Your task to perform on an android device: open wifi settings Image 0: 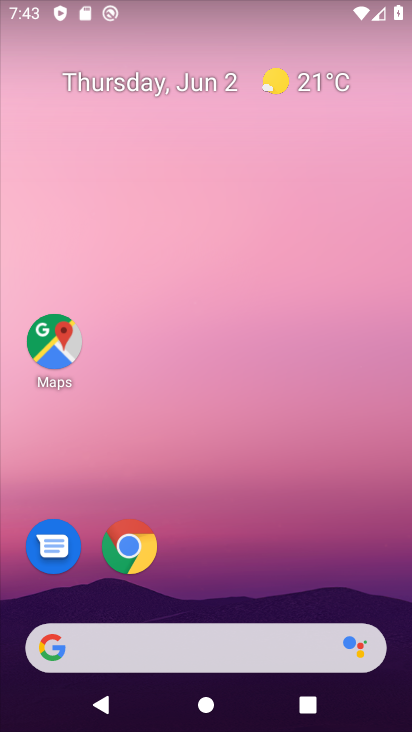
Step 0: drag from (220, 544) to (167, 29)
Your task to perform on an android device: open wifi settings Image 1: 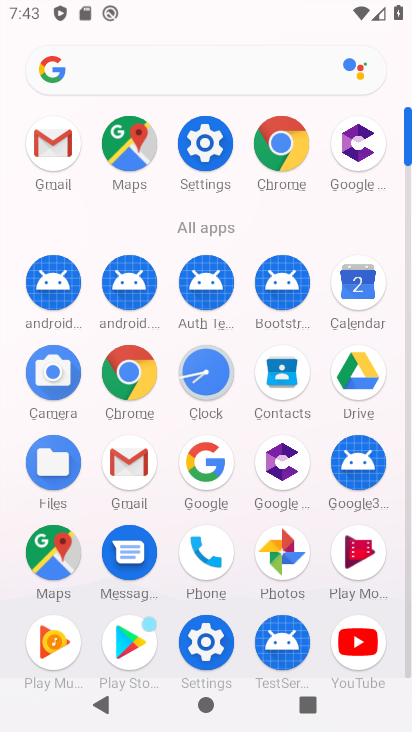
Step 1: click (196, 144)
Your task to perform on an android device: open wifi settings Image 2: 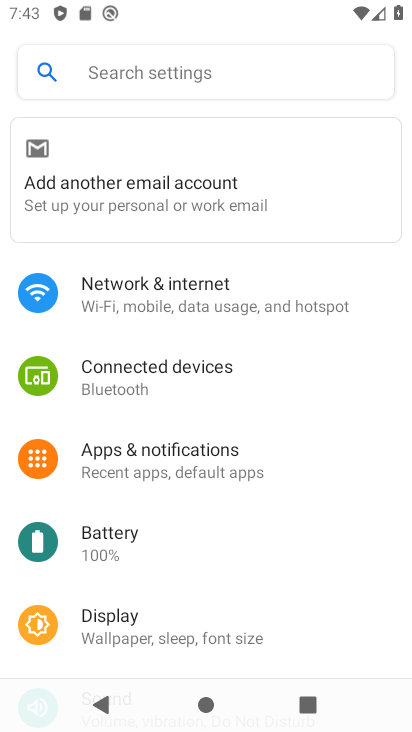
Step 2: click (189, 289)
Your task to perform on an android device: open wifi settings Image 3: 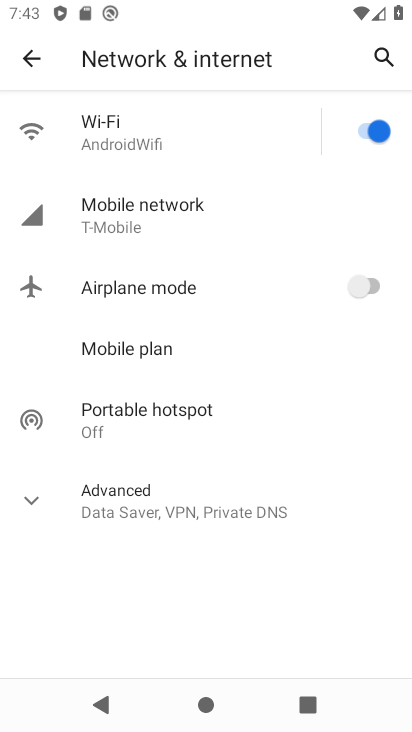
Step 3: click (170, 132)
Your task to perform on an android device: open wifi settings Image 4: 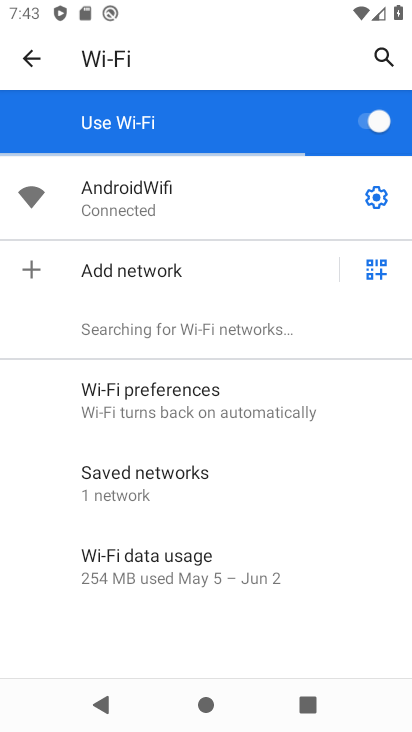
Step 4: task complete